Your task to perform on an android device: Go to Google Image 0: 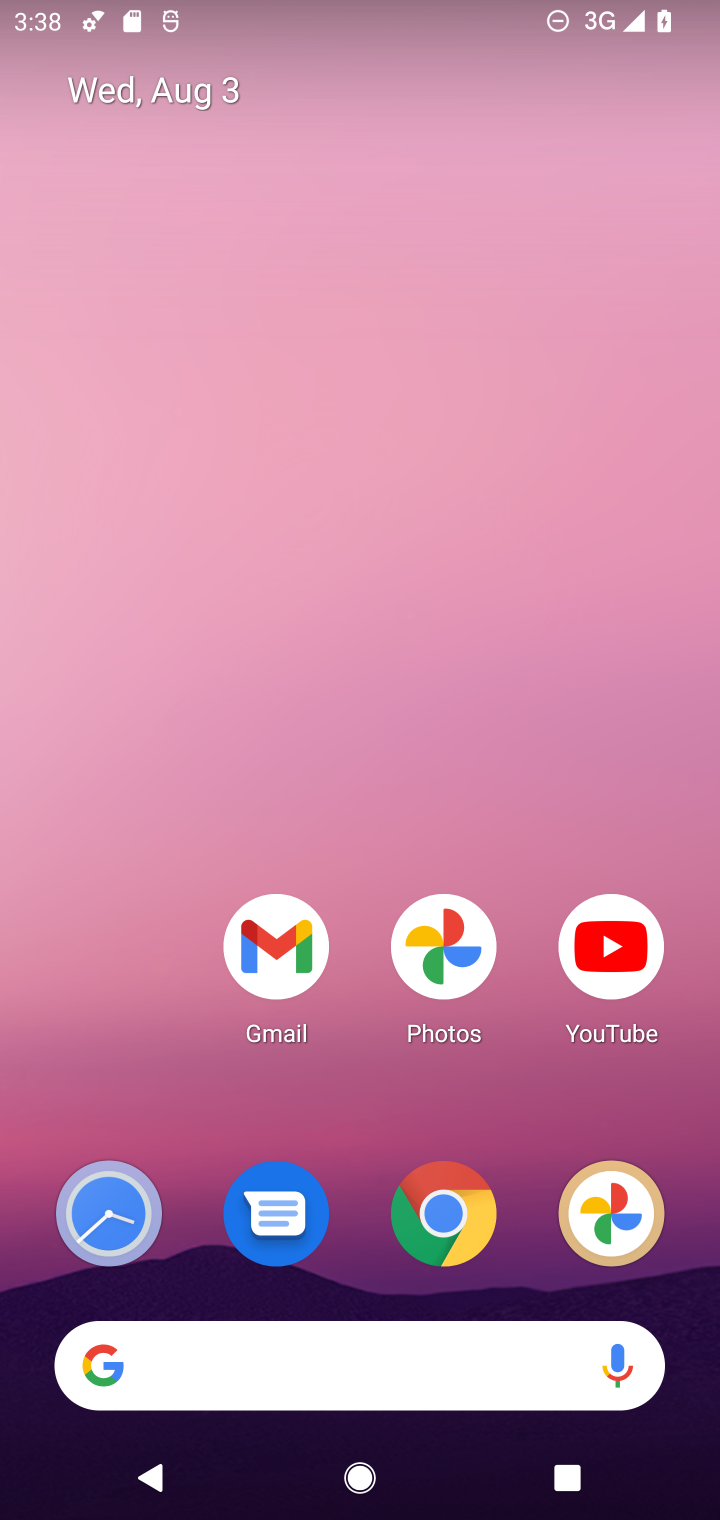
Step 0: drag from (379, 1188) to (416, 163)
Your task to perform on an android device: Go to Google Image 1: 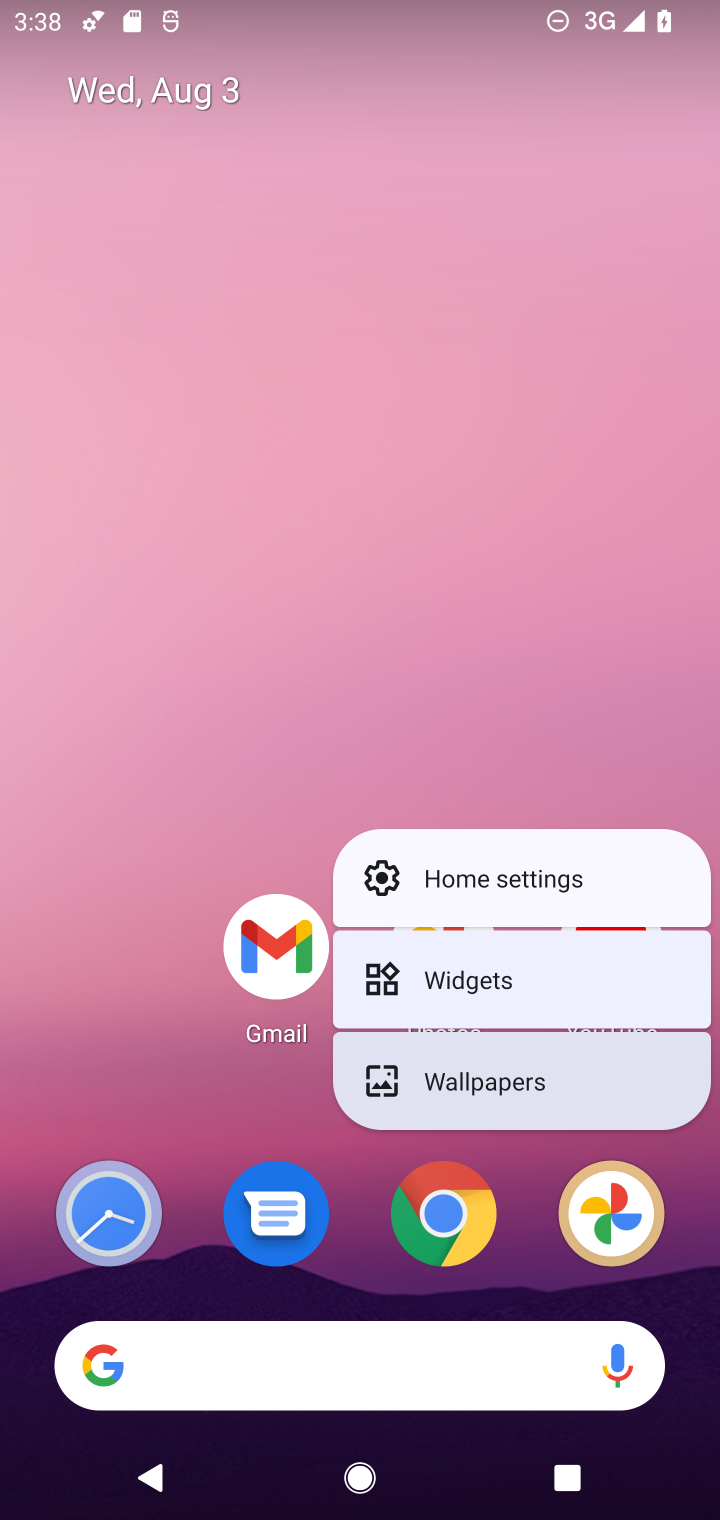
Step 1: click (102, 915)
Your task to perform on an android device: Go to Google Image 2: 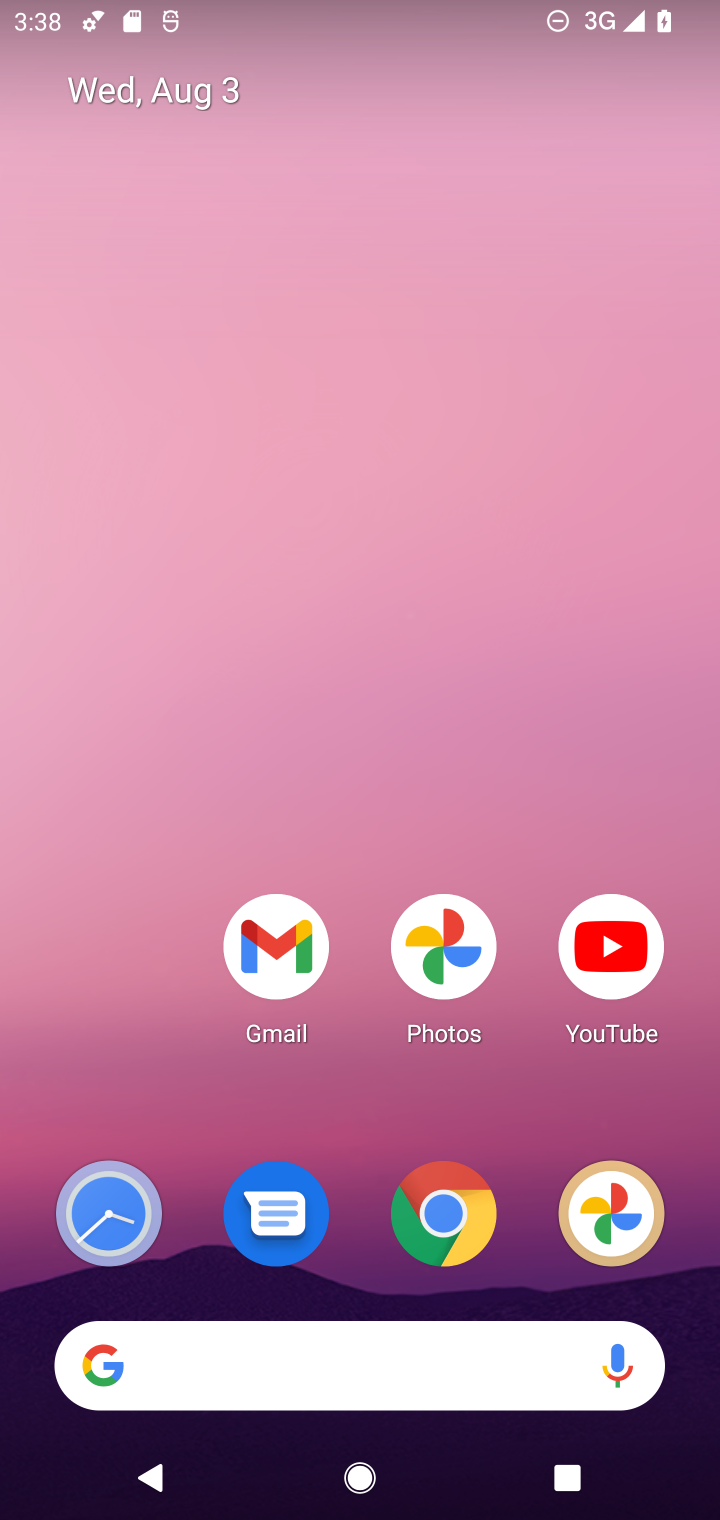
Step 2: drag from (334, 1127) to (367, 317)
Your task to perform on an android device: Go to Google Image 3: 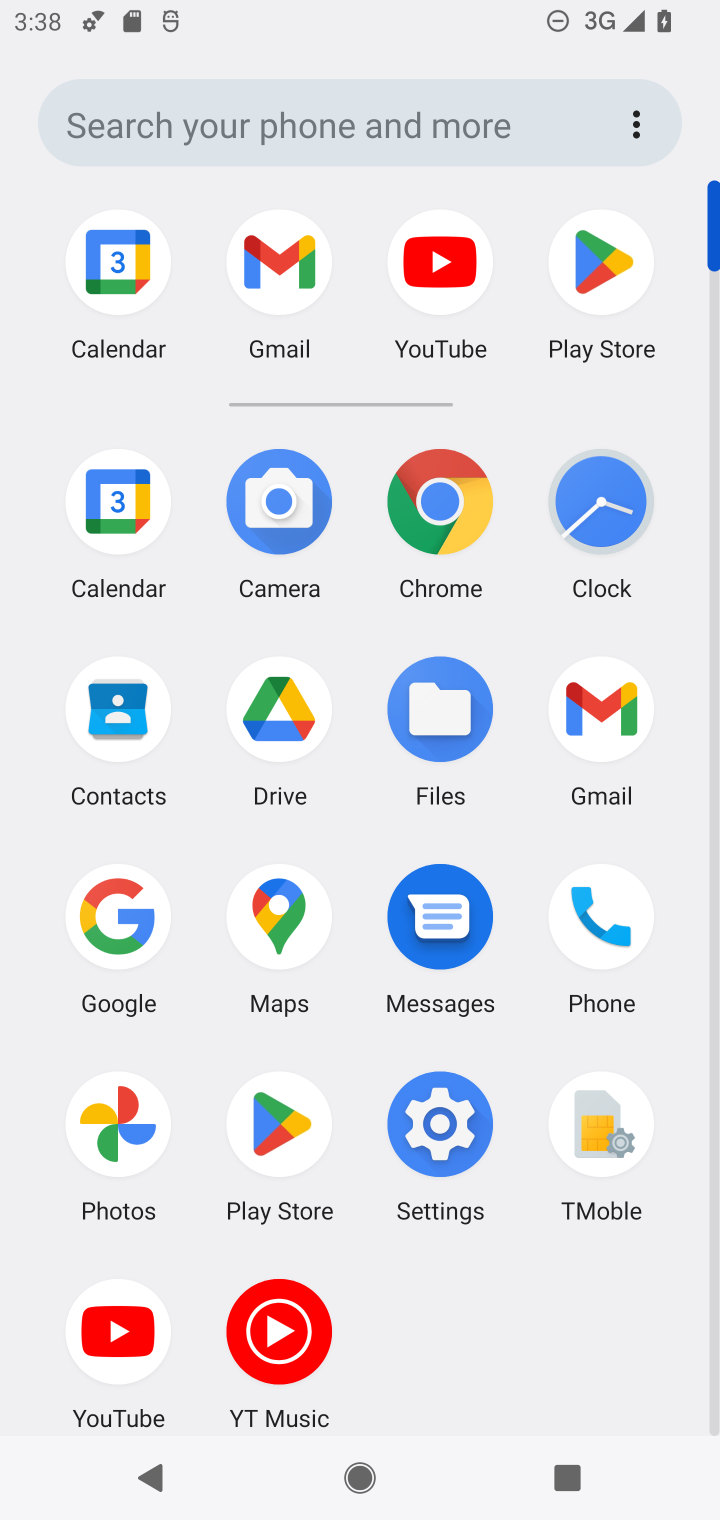
Step 3: click (108, 916)
Your task to perform on an android device: Go to Google Image 4: 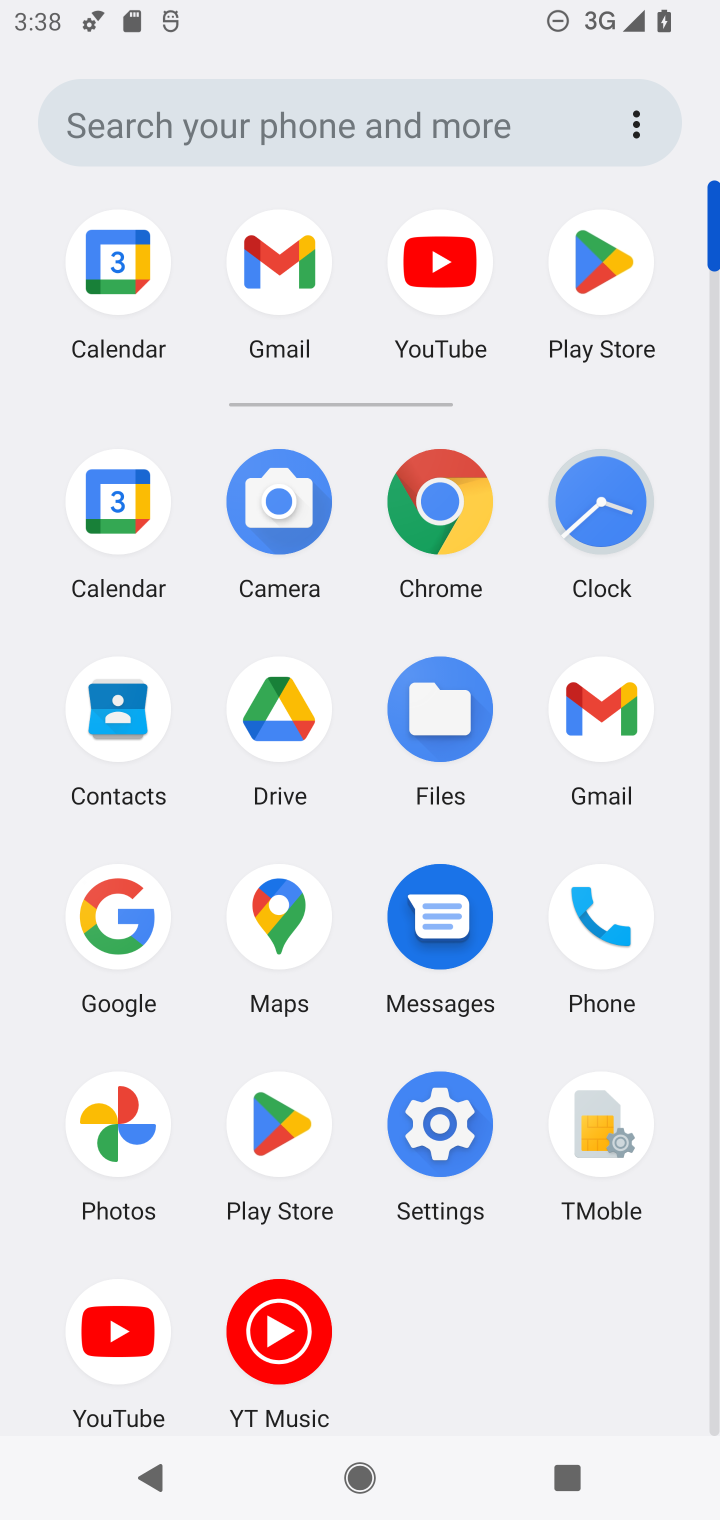
Step 4: click (123, 888)
Your task to perform on an android device: Go to Google Image 5: 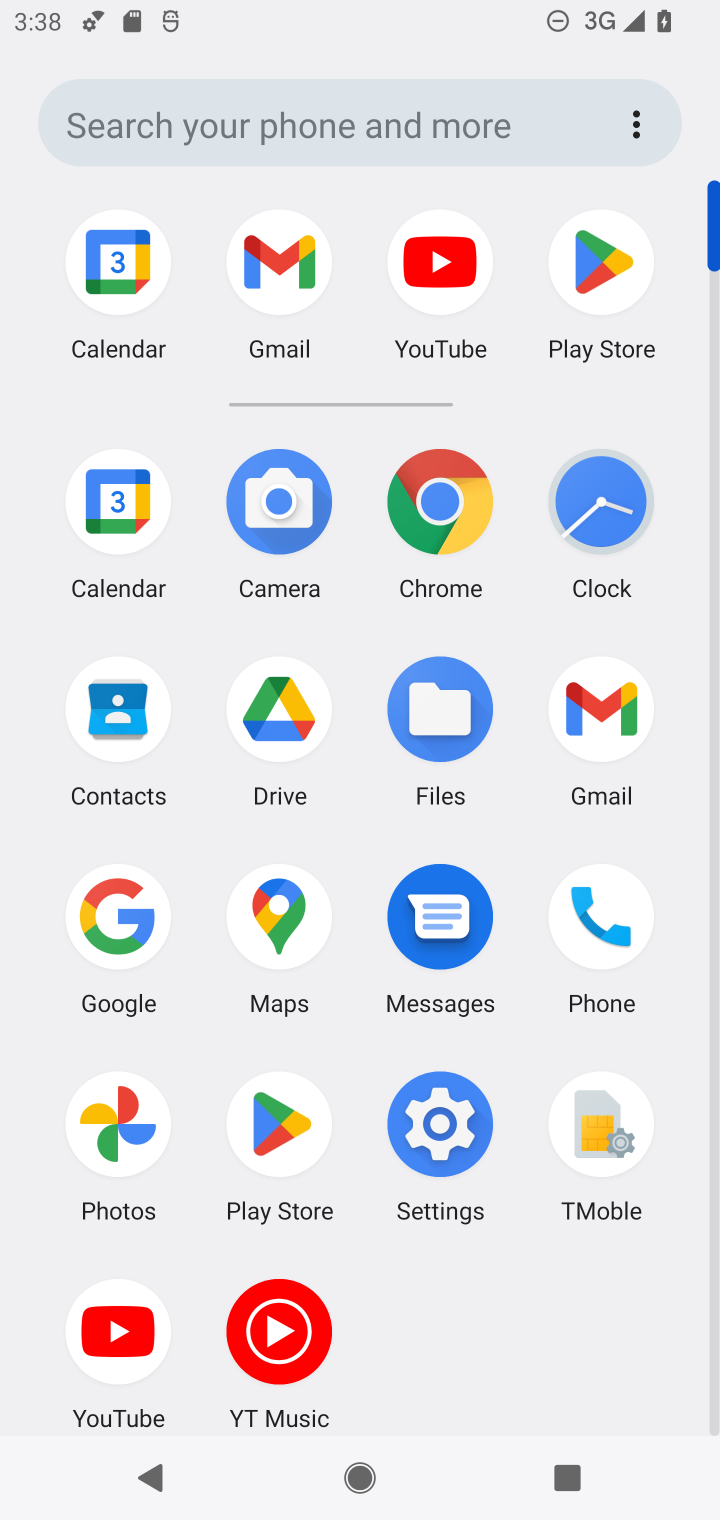
Step 5: click (111, 922)
Your task to perform on an android device: Go to Google Image 6: 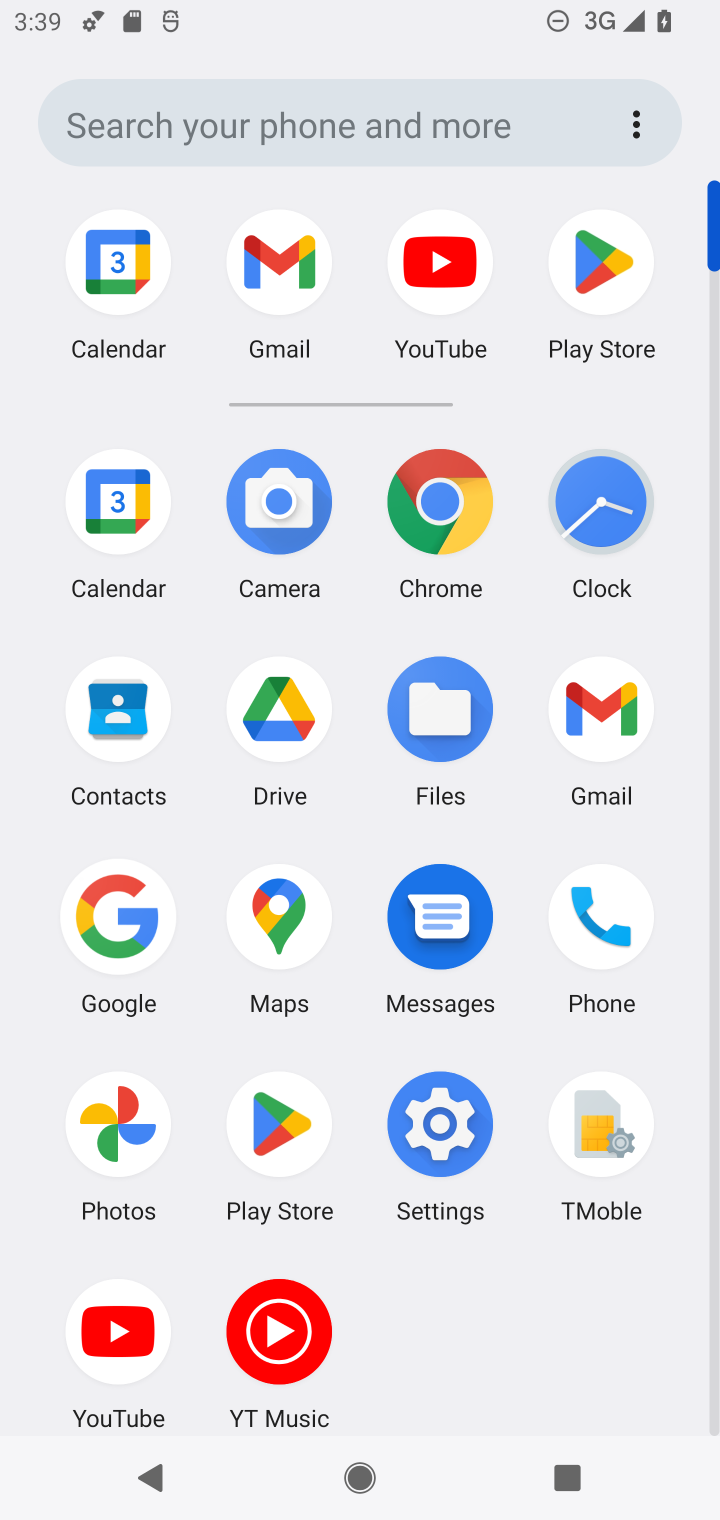
Step 6: click (111, 922)
Your task to perform on an android device: Go to Google Image 7: 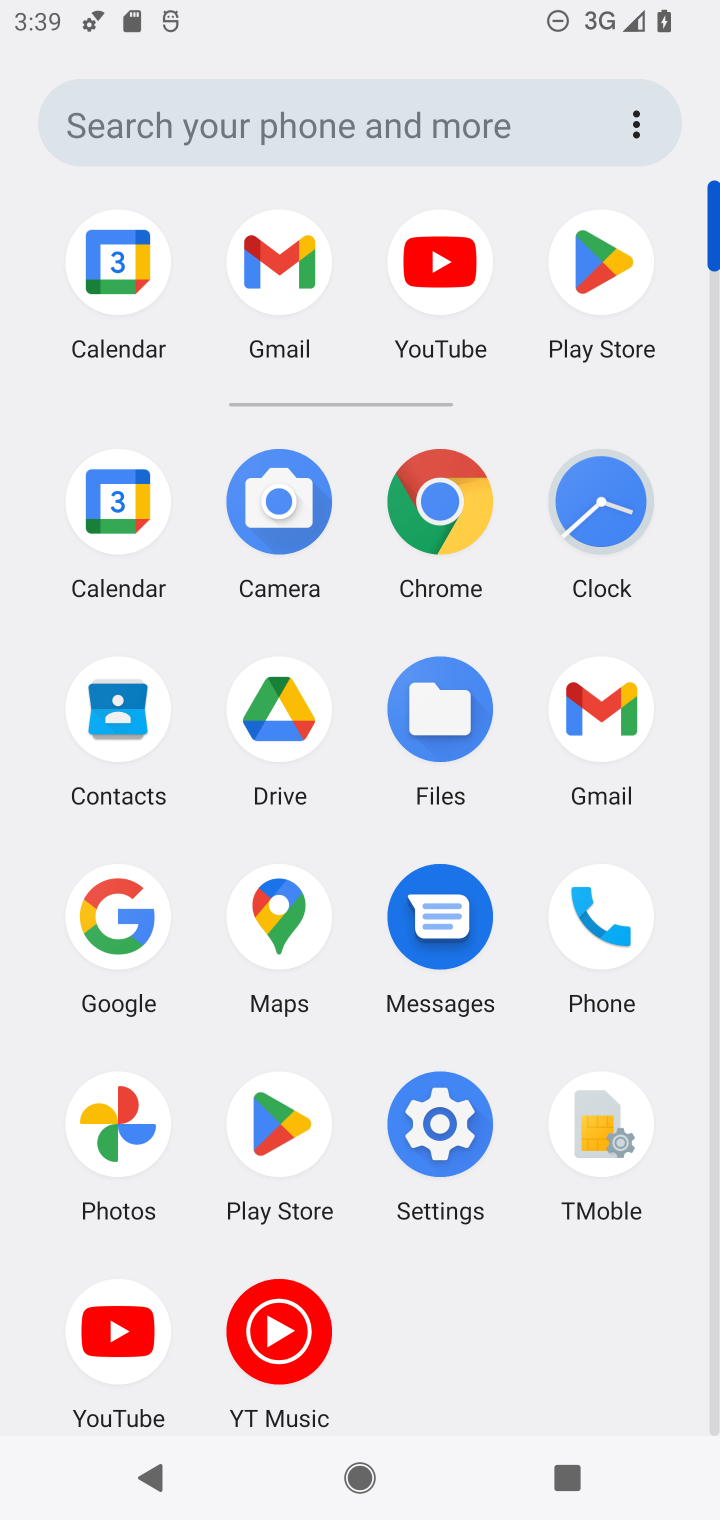
Step 7: click (111, 922)
Your task to perform on an android device: Go to Google Image 8: 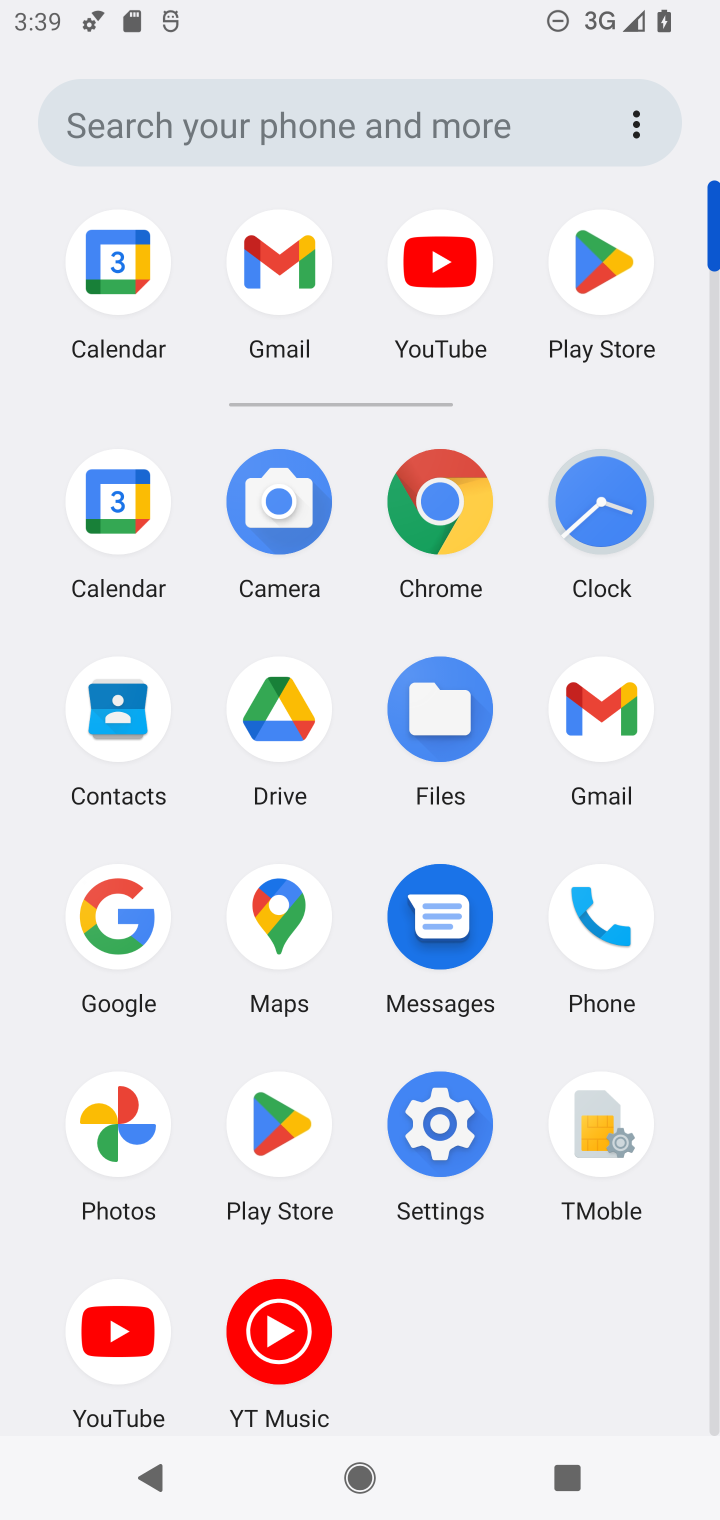
Step 8: click (124, 892)
Your task to perform on an android device: Go to Google Image 9: 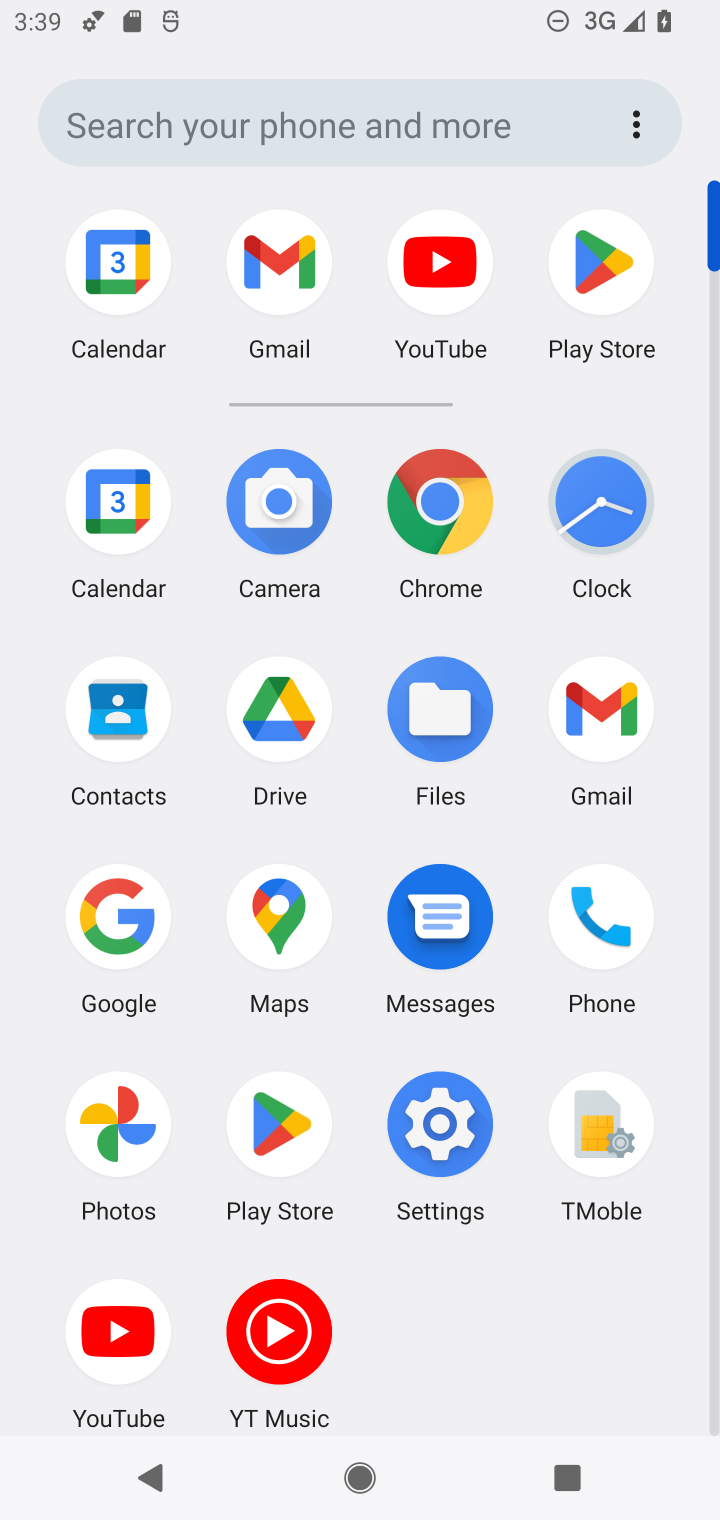
Step 9: click (124, 895)
Your task to perform on an android device: Go to Google Image 10: 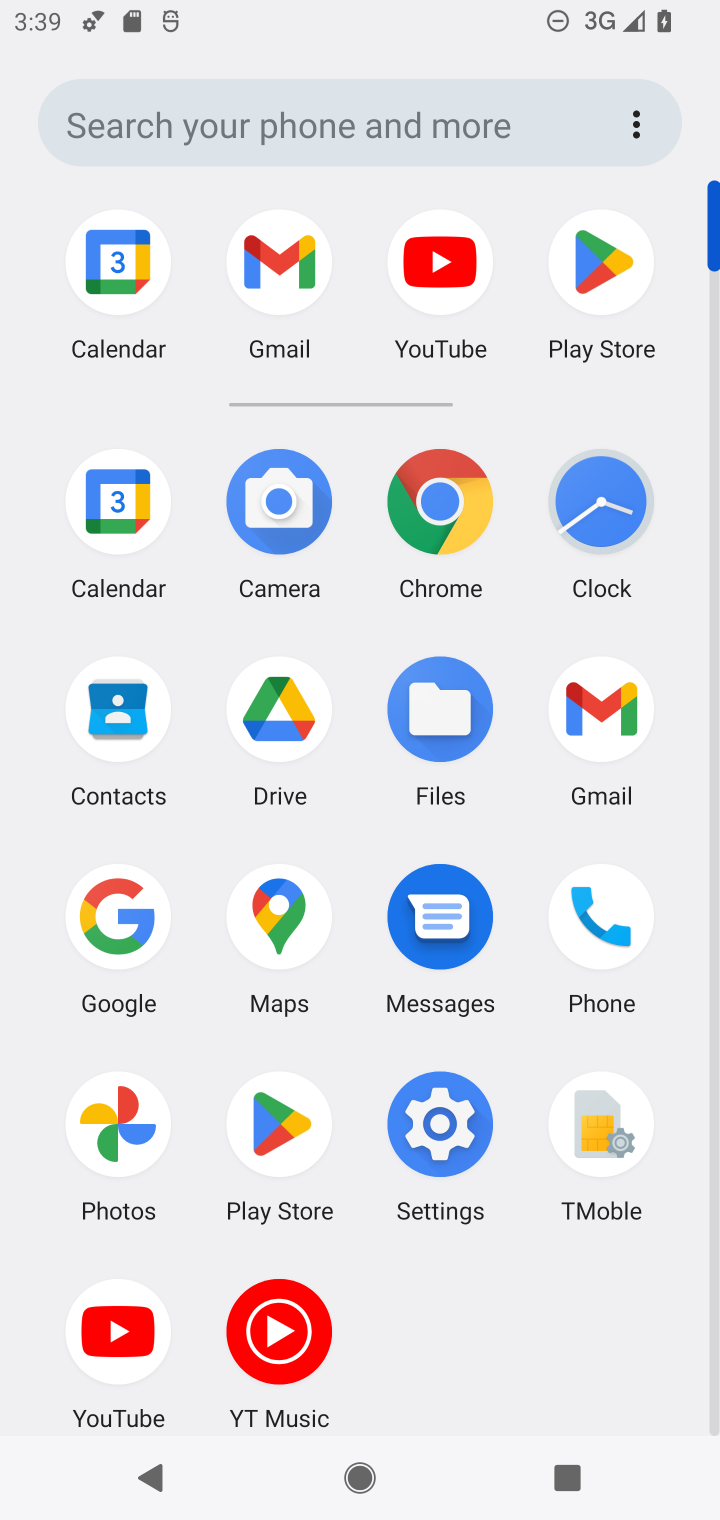
Step 10: click (95, 908)
Your task to perform on an android device: Go to Google Image 11: 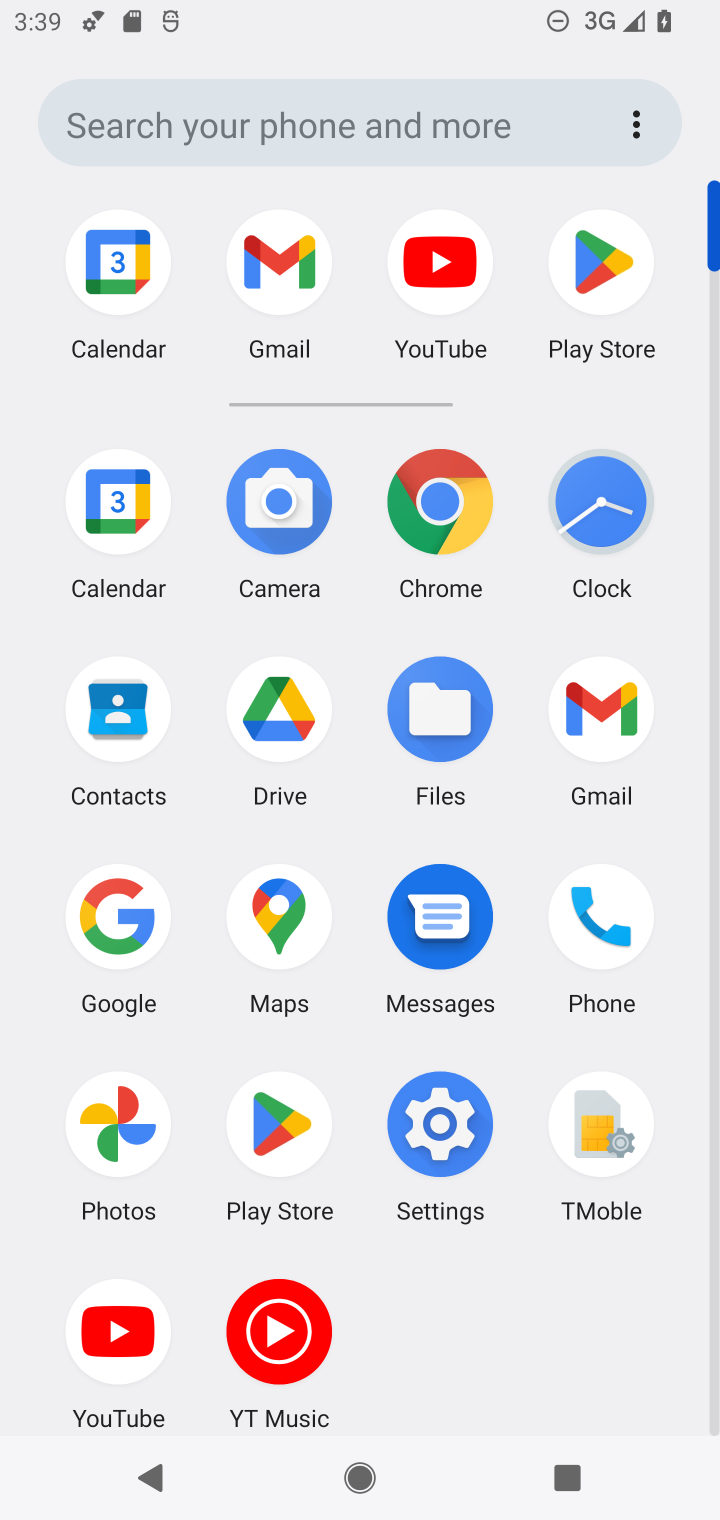
Step 11: click (88, 890)
Your task to perform on an android device: Go to Google Image 12: 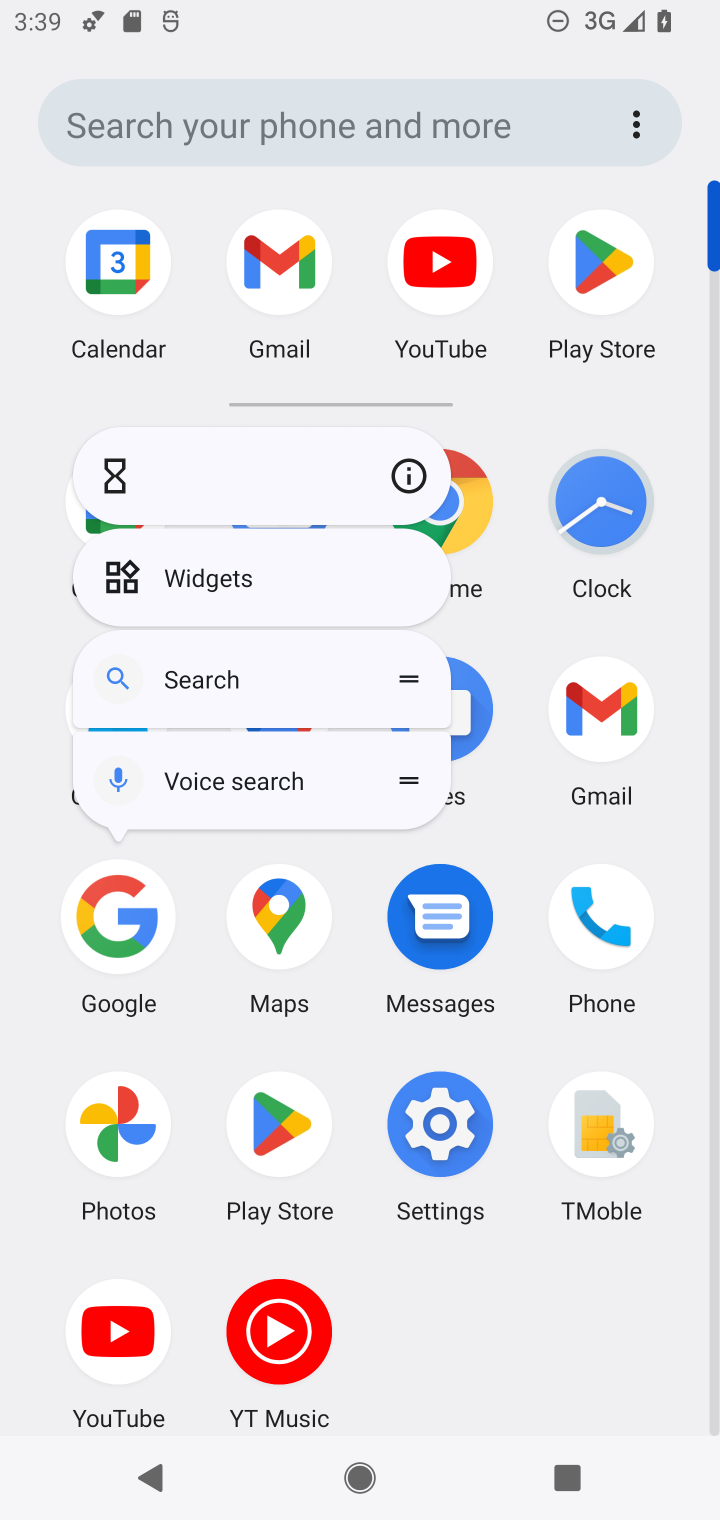
Step 12: click (88, 890)
Your task to perform on an android device: Go to Google Image 13: 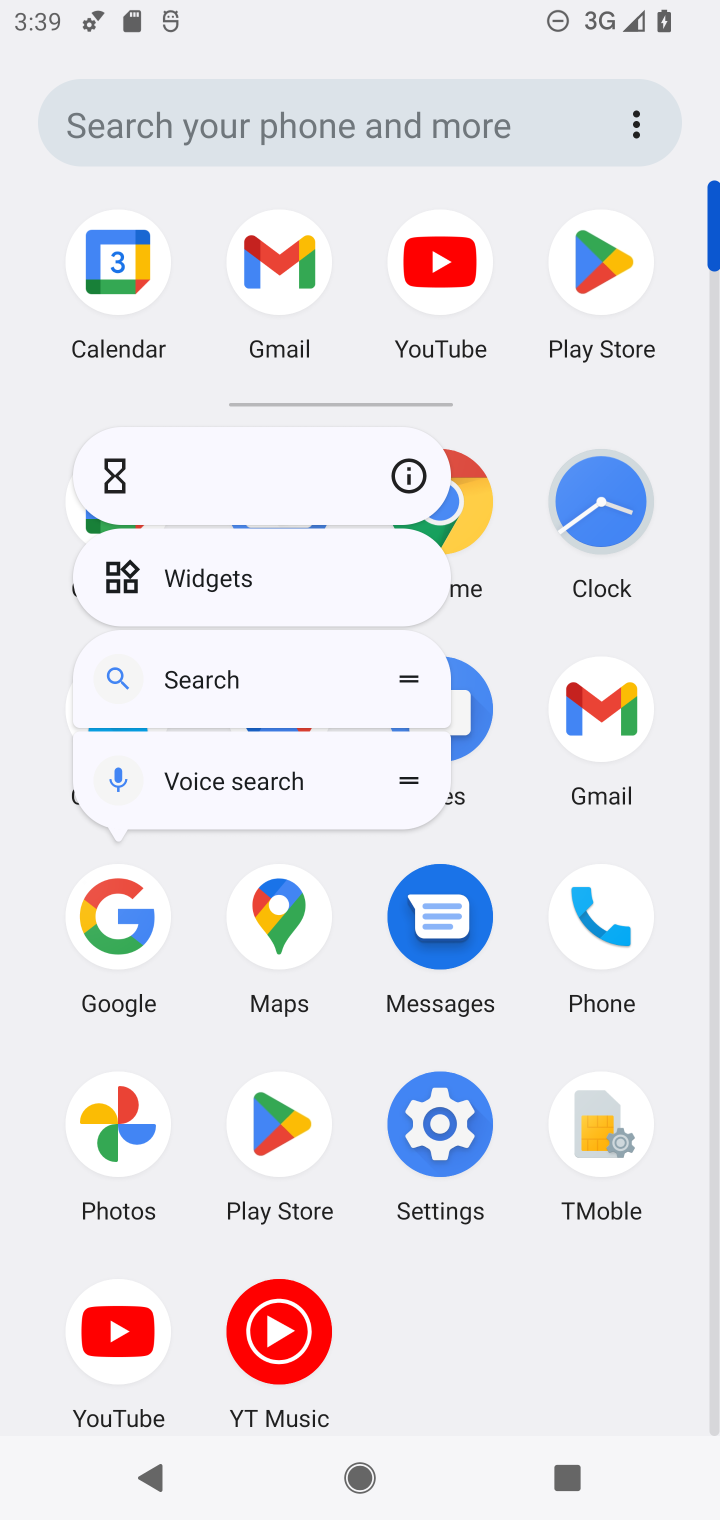
Step 13: click (131, 929)
Your task to perform on an android device: Go to Google Image 14: 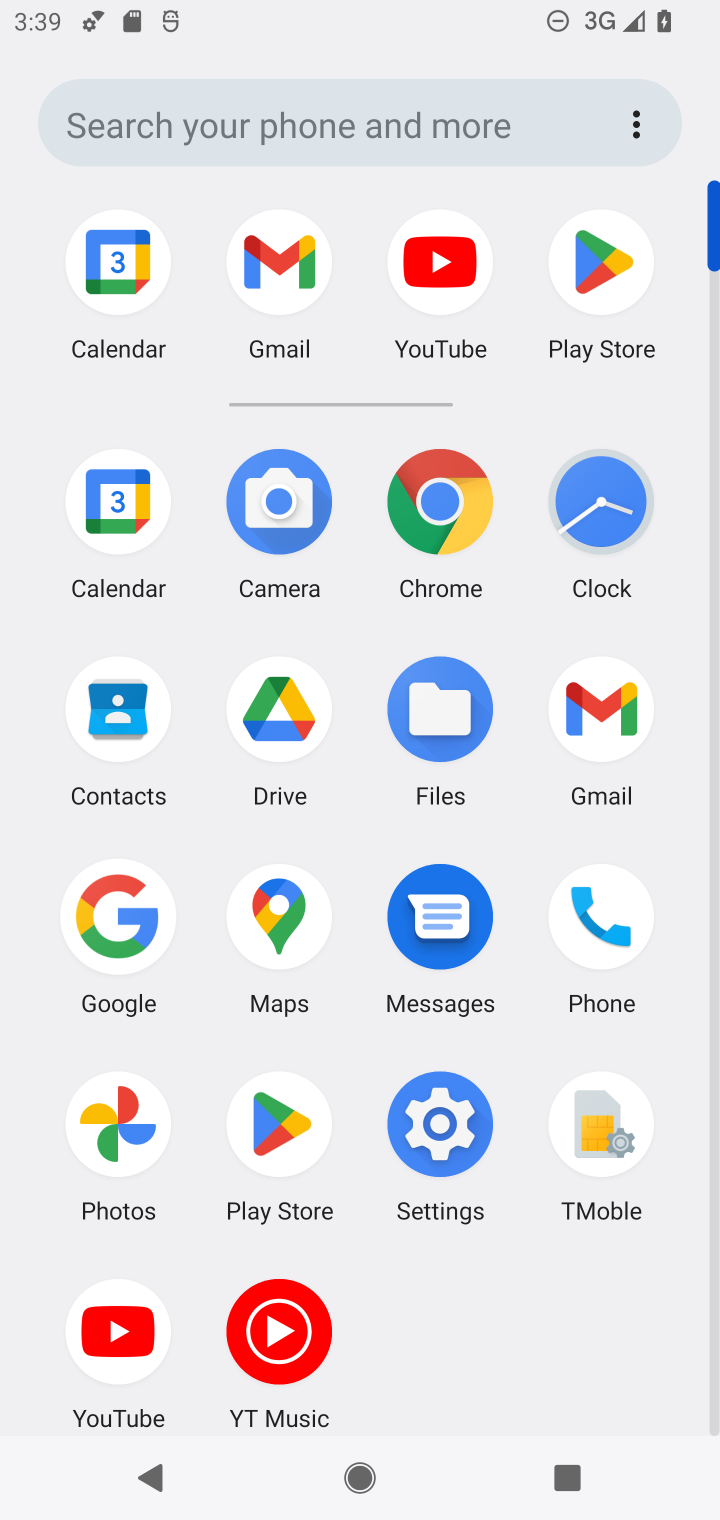
Step 14: click (114, 910)
Your task to perform on an android device: Go to Google Image 15: 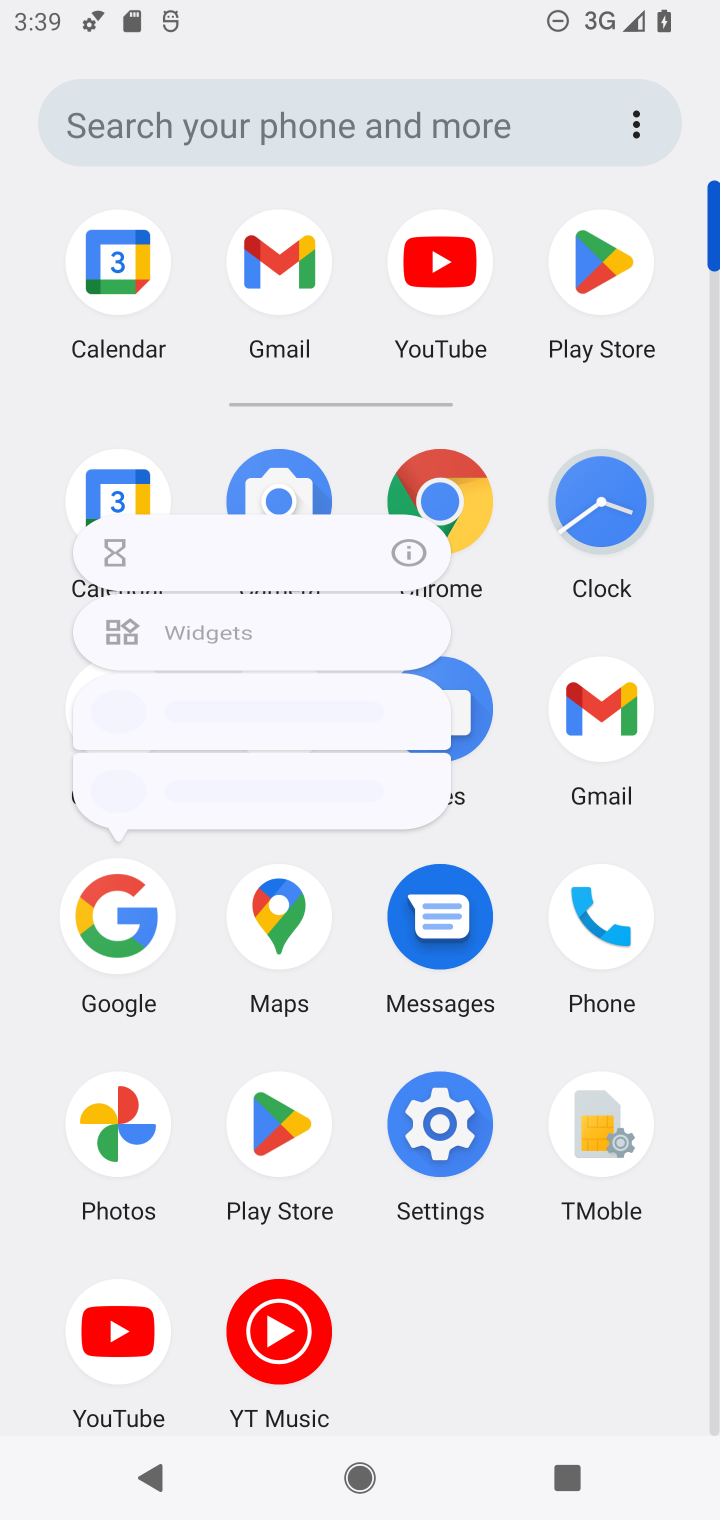
Step 15: click (114, 910)
Your task to perform on an android device: Go to Google Image 16: 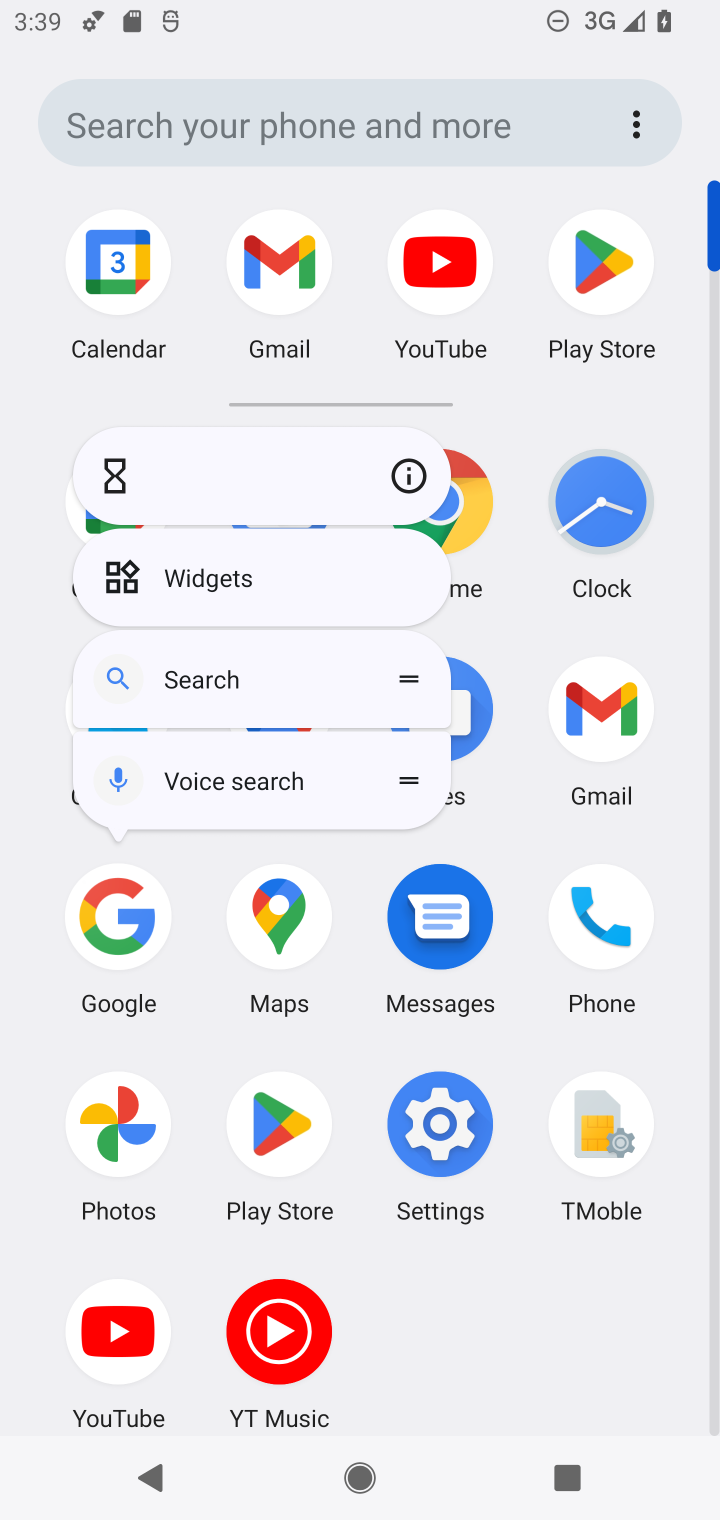
Step 16: click (114, 910)
Your task to perform on an android device: Go to Google Image 17: 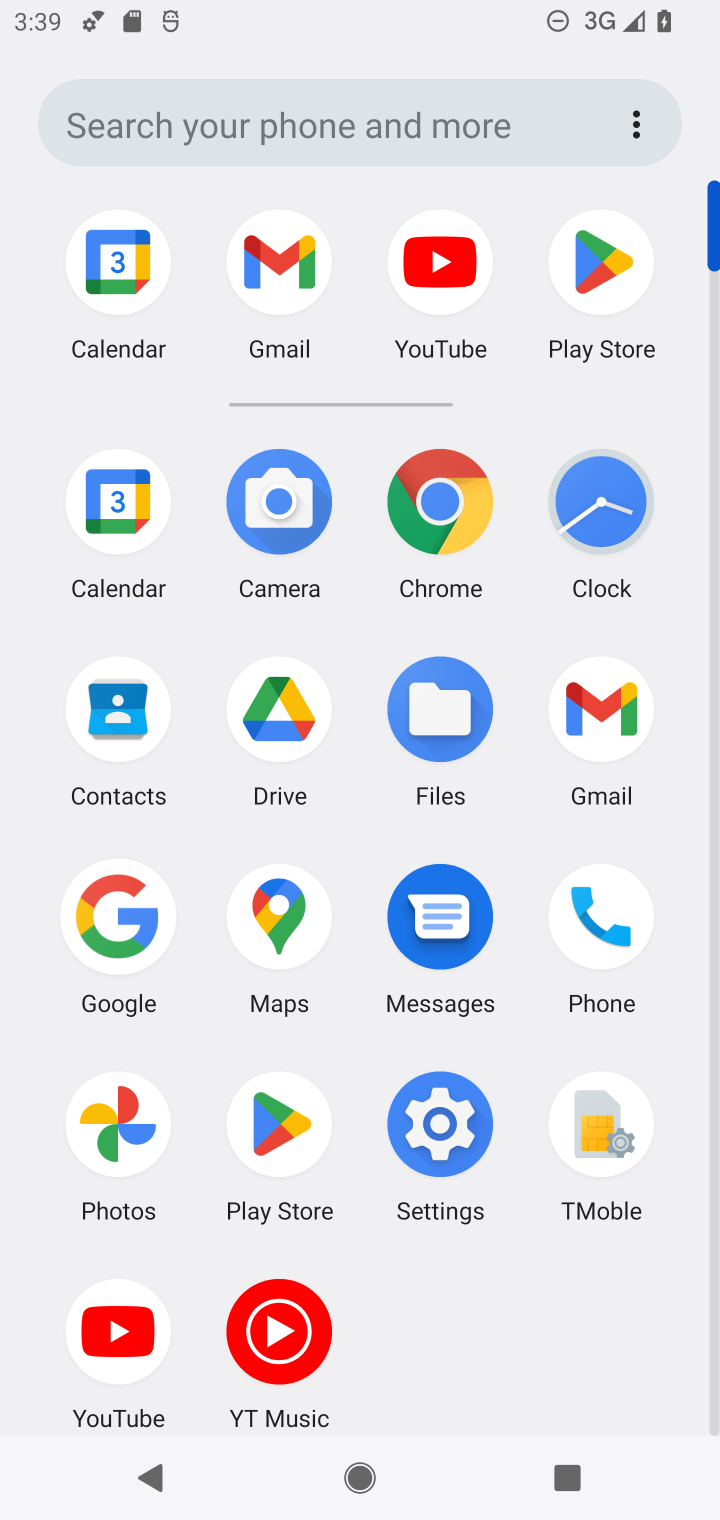
Step 17: click (114, 910)
Your task to perform on an android device: Go to Google Image 18: 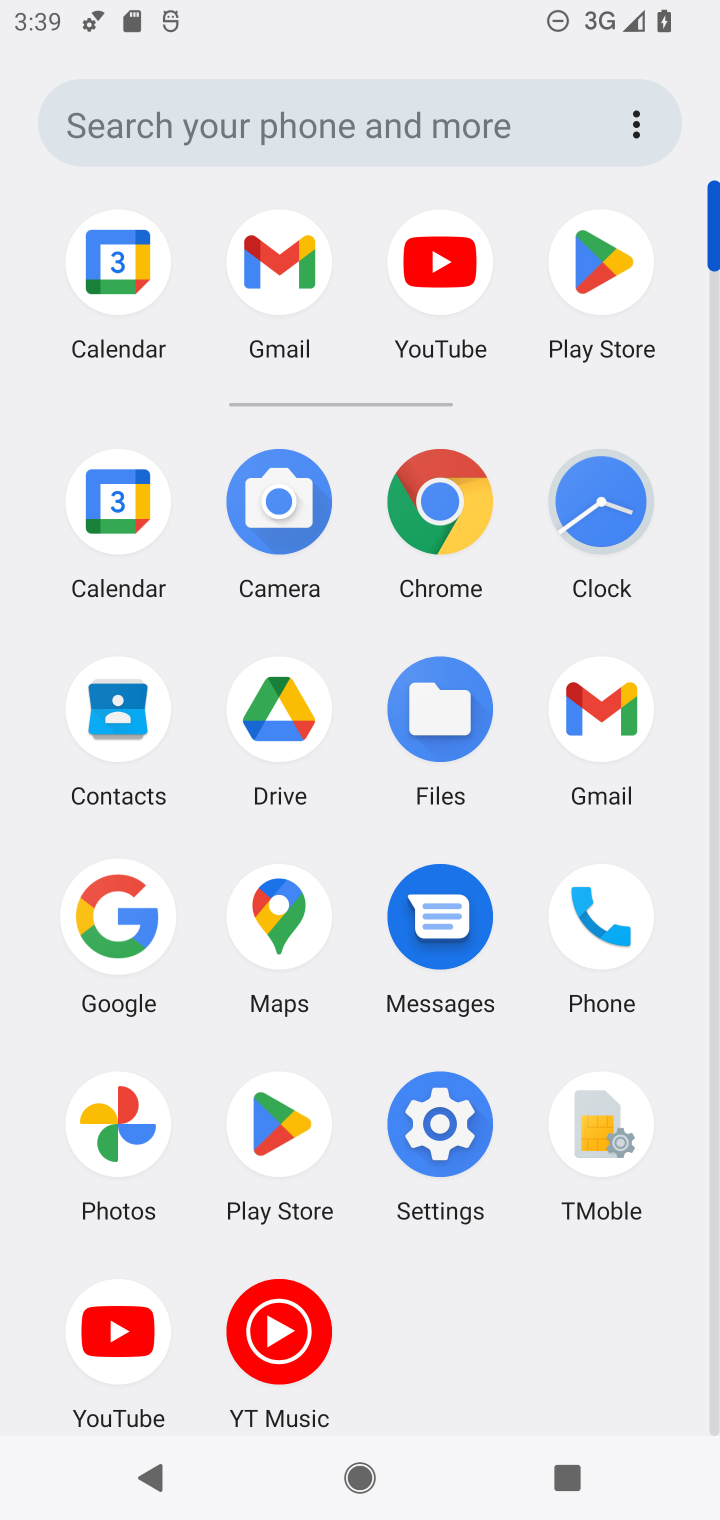
Step 18: click (73, 896)
Your task to perform on an android device: Go to Google Image 19: 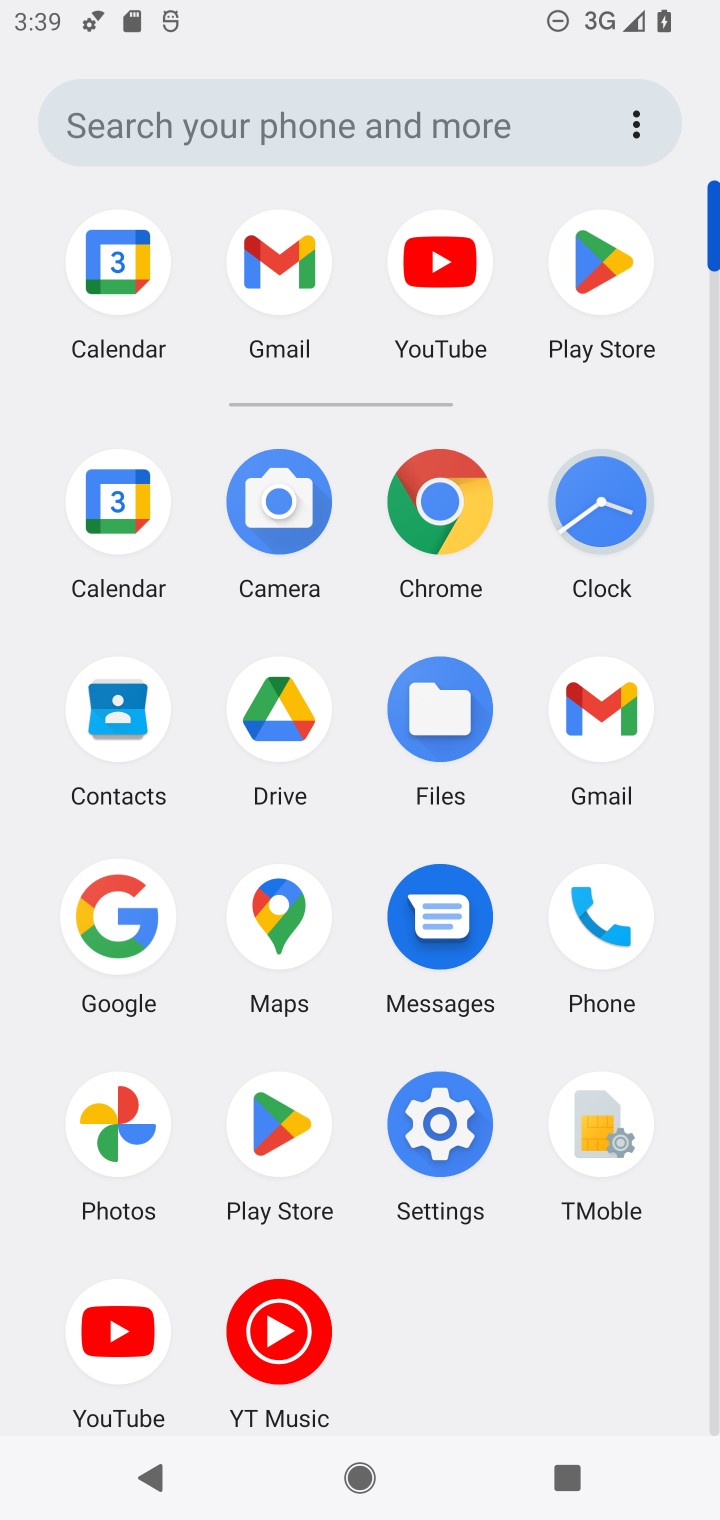
Step 19: click (80, 904)
Your task to perform on an android device: Go to Google Image 20: 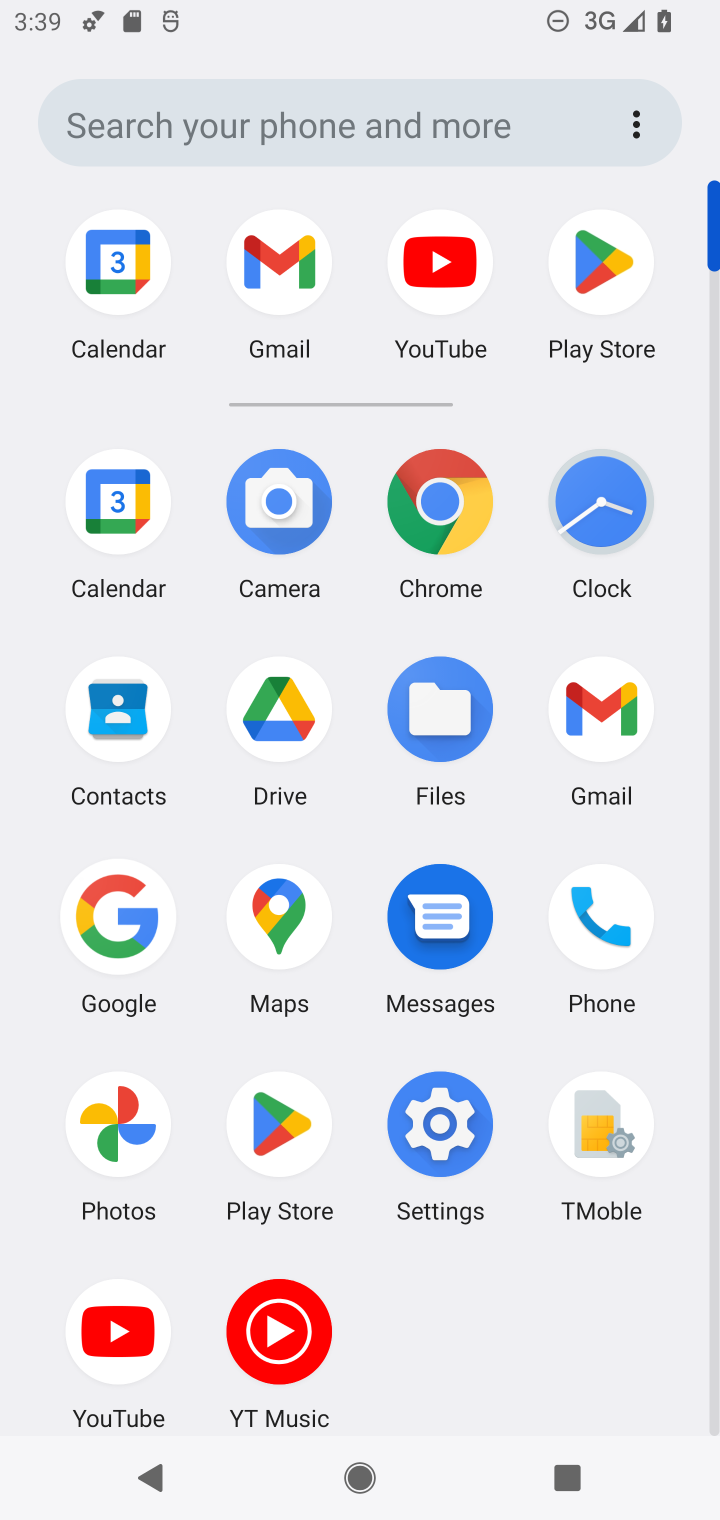
Step 20: click (115, 928)
Your task to perform on an android device: Go to Google Image 21: 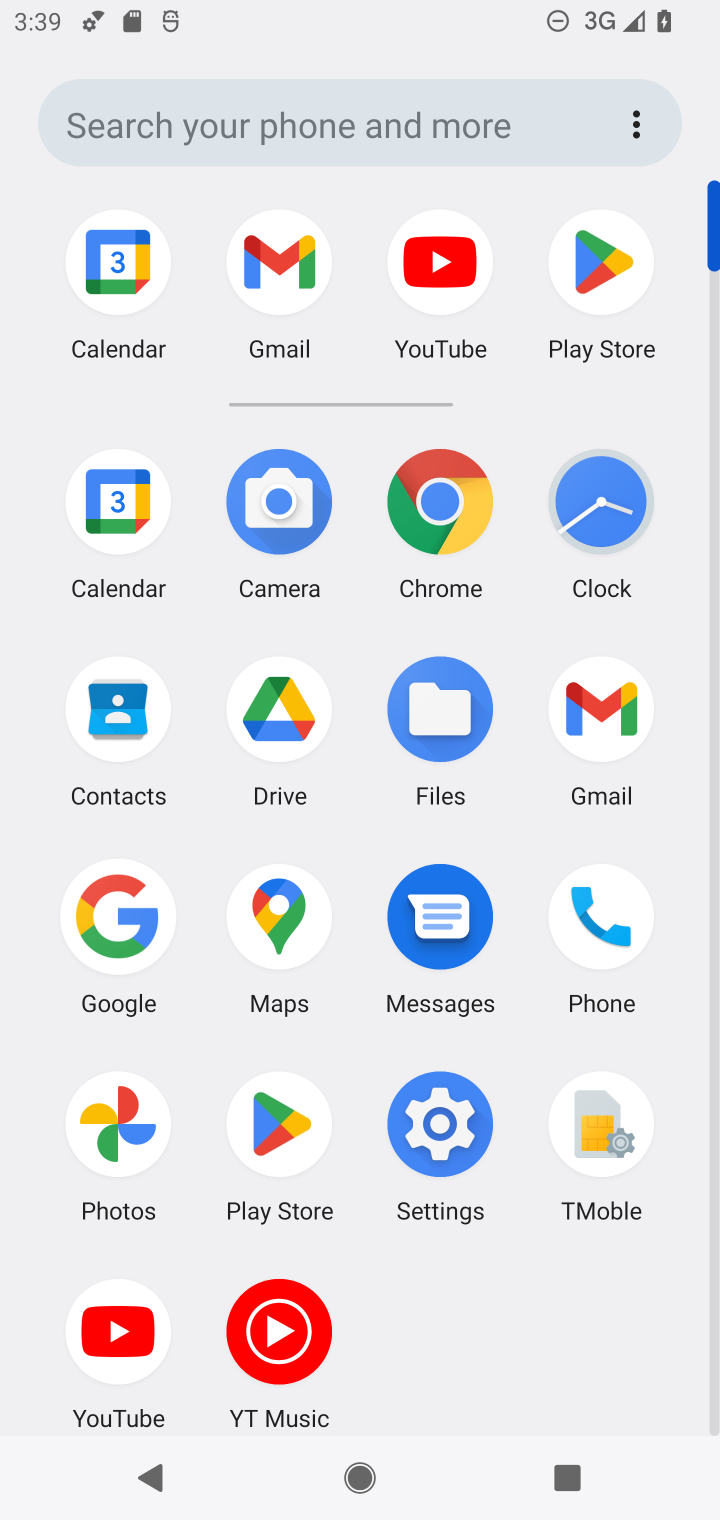
Step 21: click (115, 928)
Your task to perform on an android device: Go to Google Image 22: 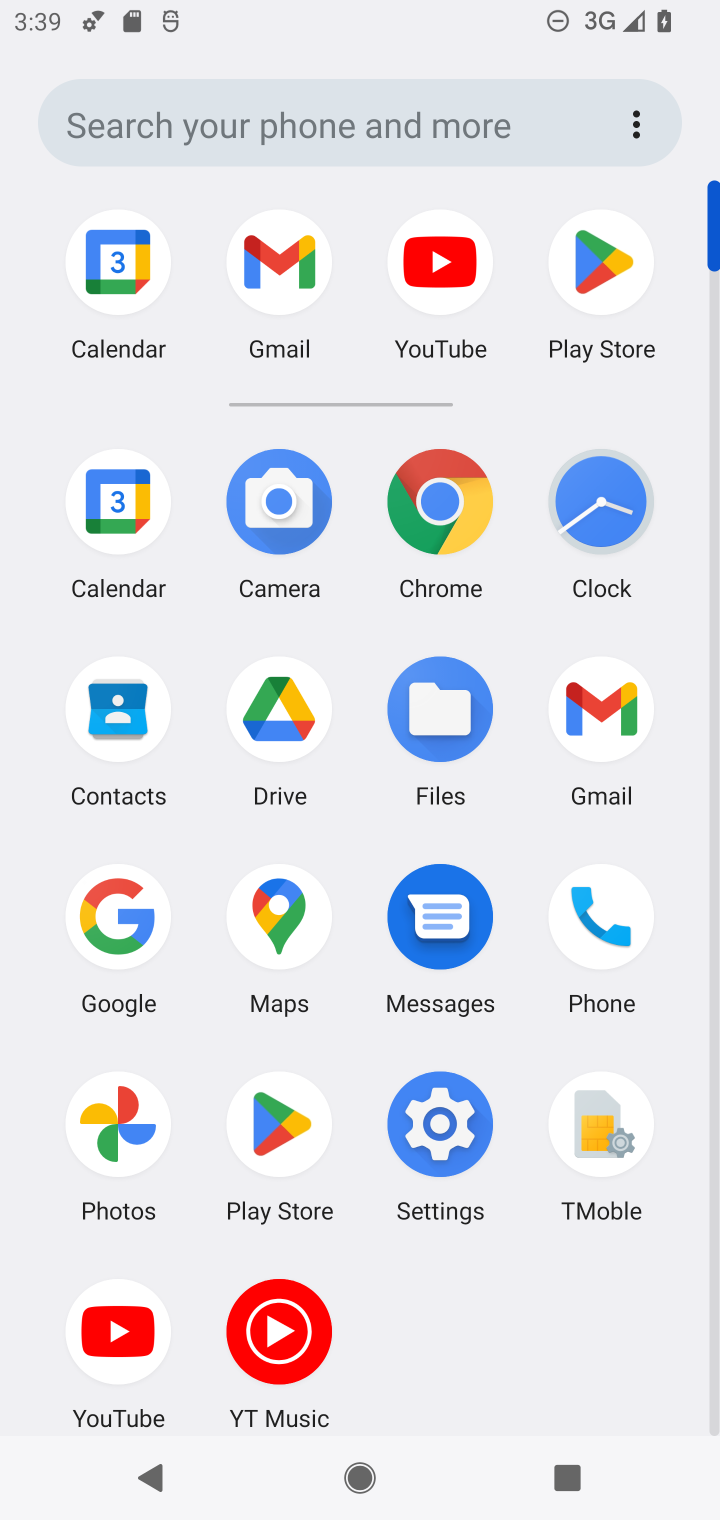
Step 22: click (109, 901)
Your task to perform on an android device: Go to Google Image 23: 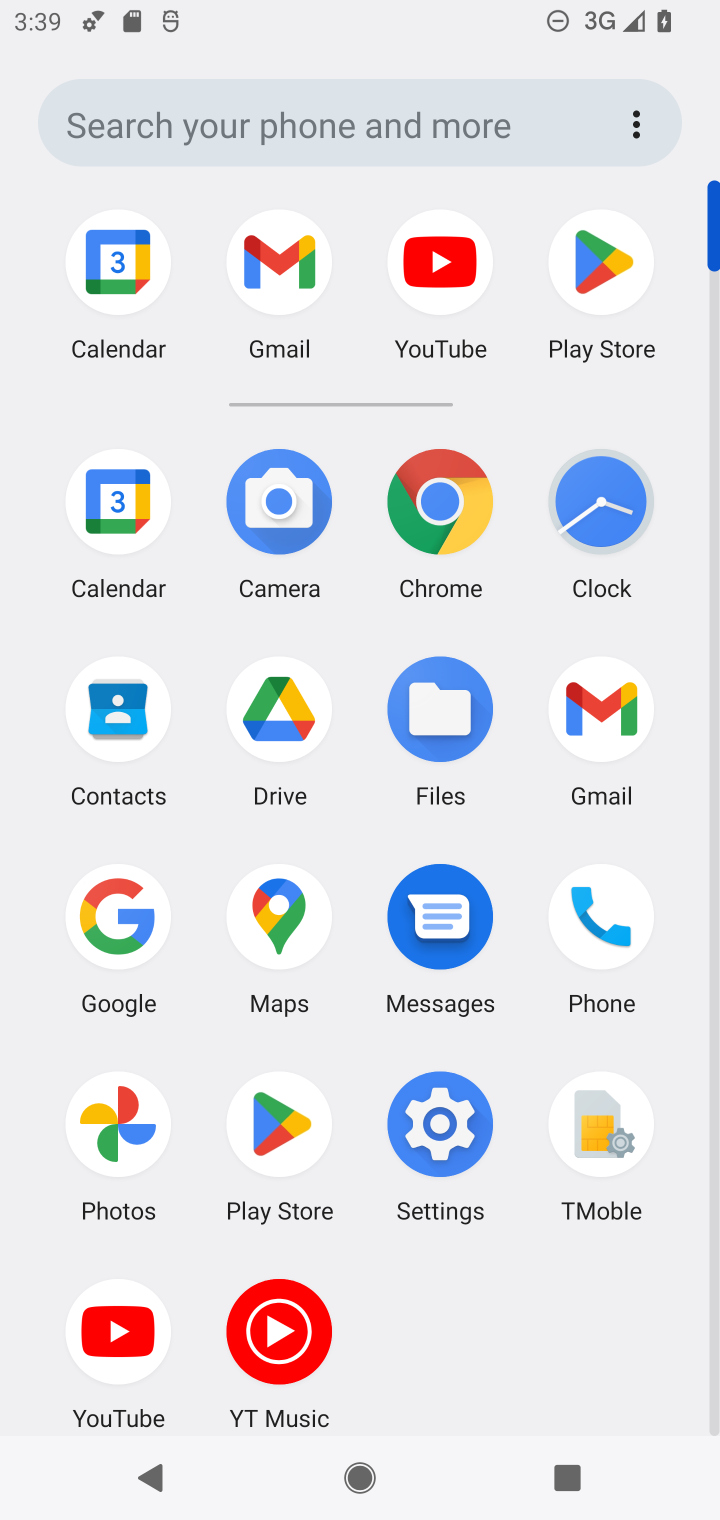
Step 23: click (109, 901)
Your task to perform on an android device: Go to Google Image 24: 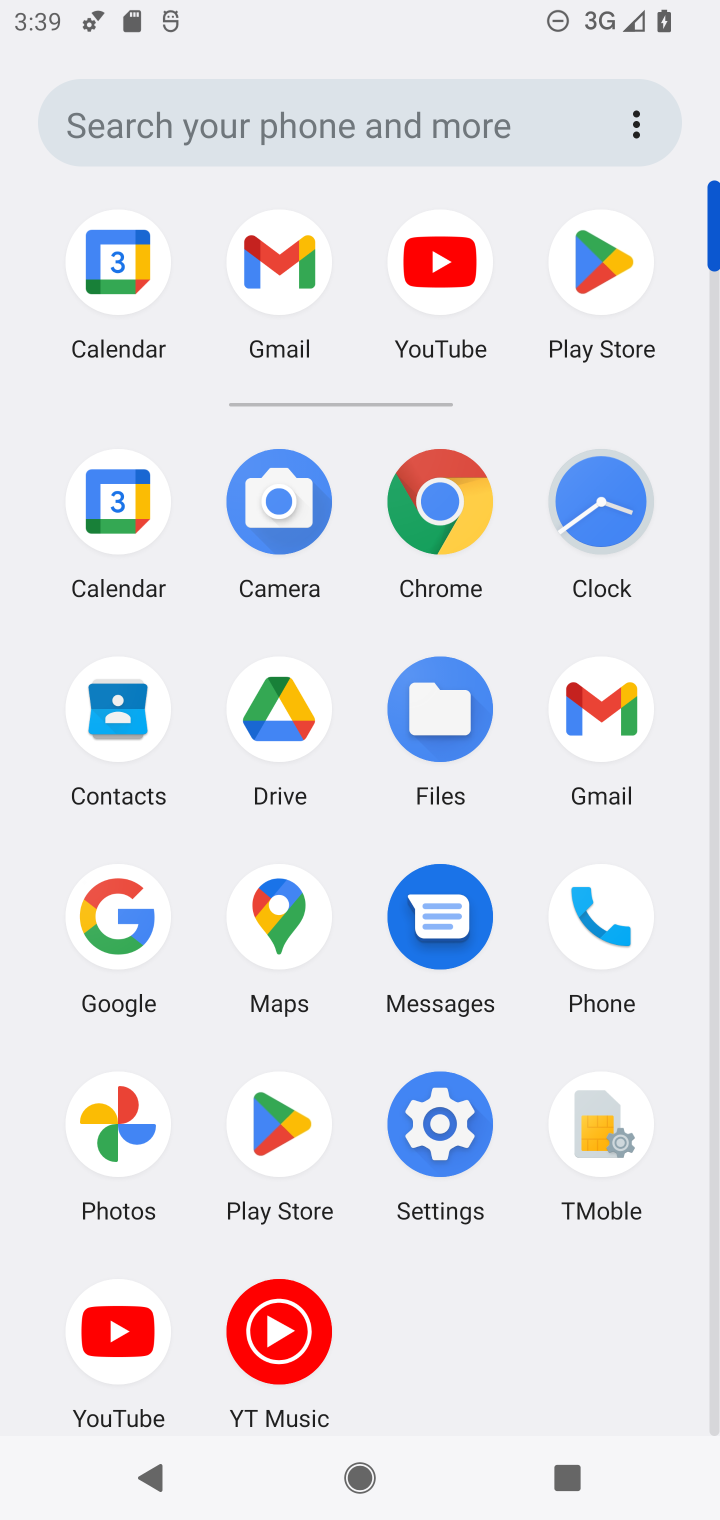
Step 24: task complete